Your task to perform on an android device: Open ESPN.com Image 0: 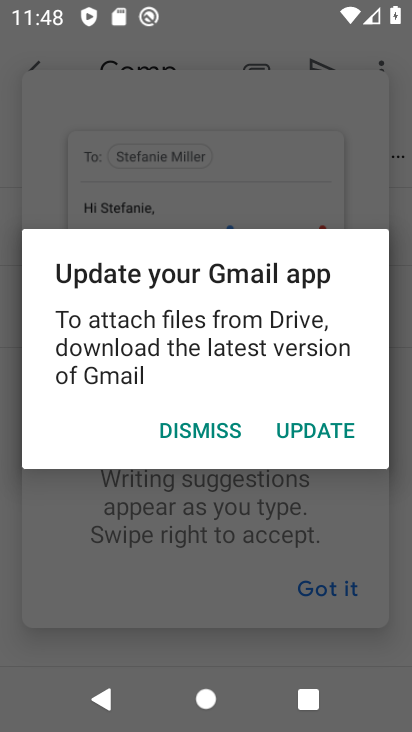
Step 0: press home button
Your task to perform on an android device: Open ESPN.com Image 1: 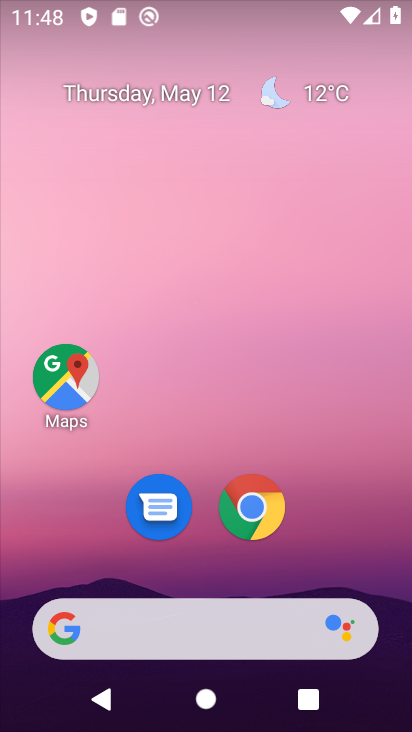
Step 1: click (235, 510)
Your task to perform on an android device: Open ESPN.com Image 2: 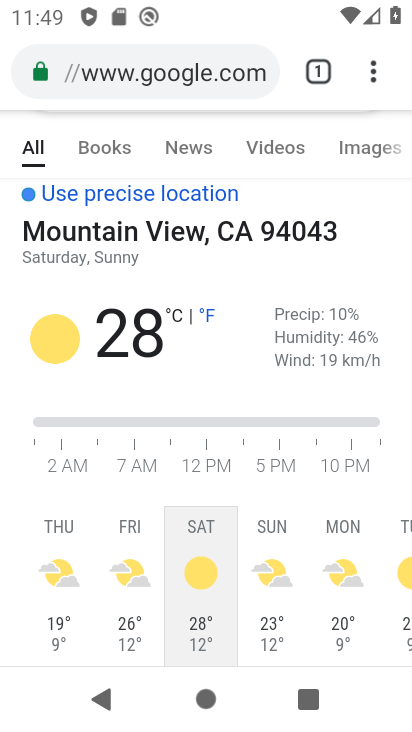
Step 2: click (186, 80)
Your task to perform on an android device: Open ESPN.com Image 3: 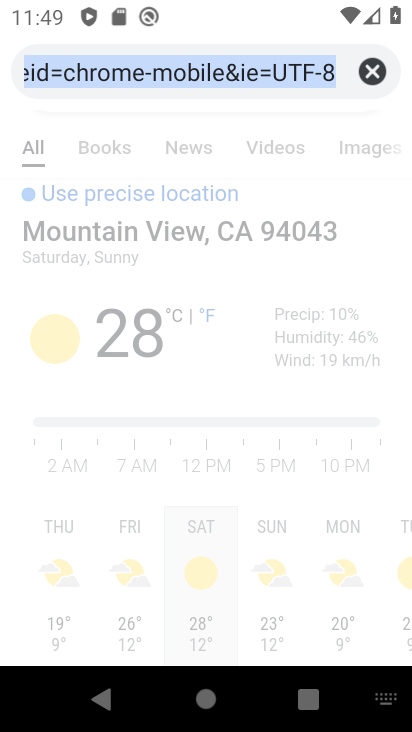
Step 3: type "ESPN.com"
Your task to perform on an android device: Open ESPN.com Image 4: 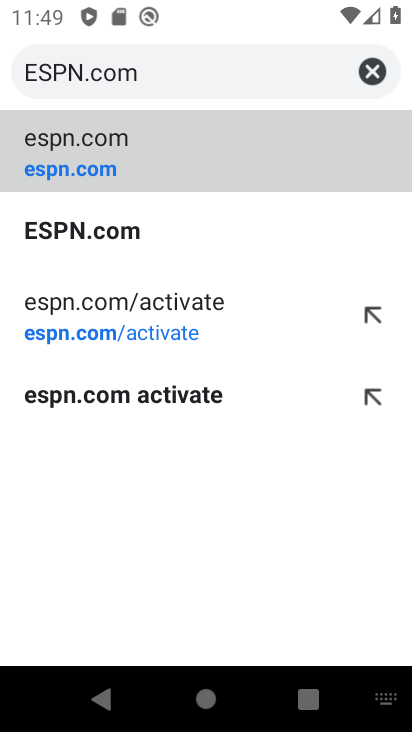
Step 4: click (119, 169)
Your task to perform on an android device: Open ESPN.com Image 5: 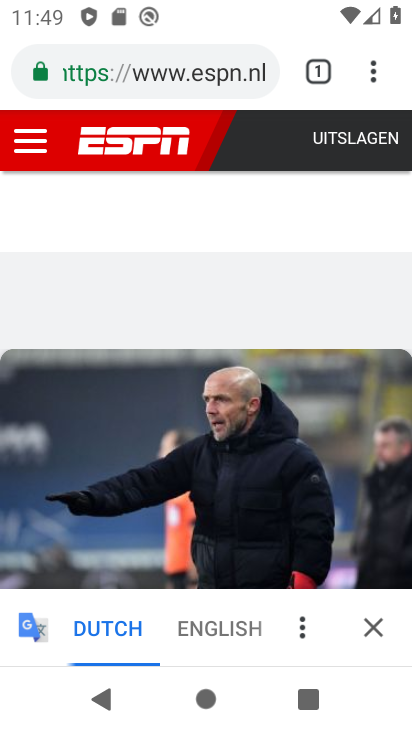
Step 5: task complete